Your task to perform on an android device: Open Wikipedia Image 0: 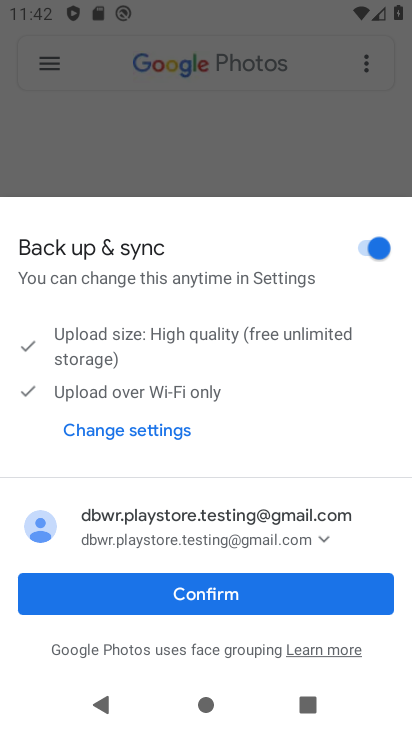
Step 0: press home button
Your task to perform on an android device: Open Wikipedia Image 1: 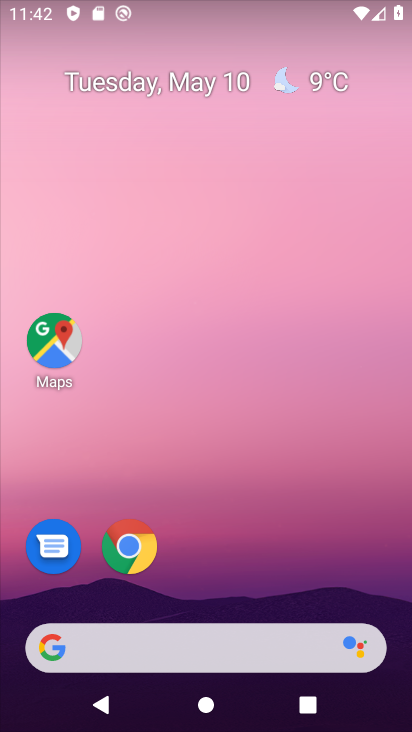
Step 1: click (144, 563)
Your task to perform on an android device: Open Wikipedia Image 2: 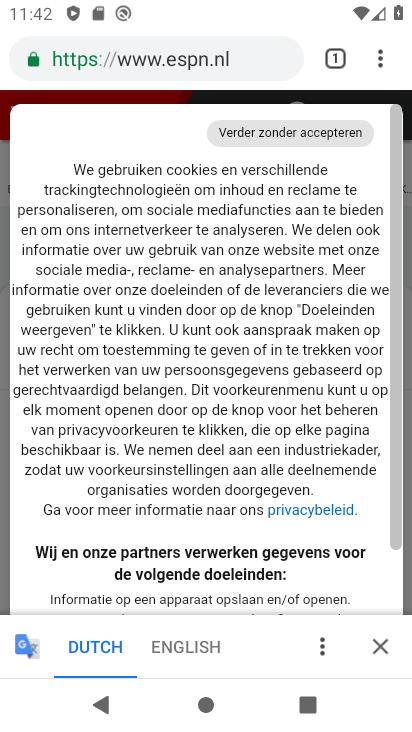
Step 2: drag from (204, 29) to (206, 129)
Your task to perform on an android device: Open Wikipedia Image 3: 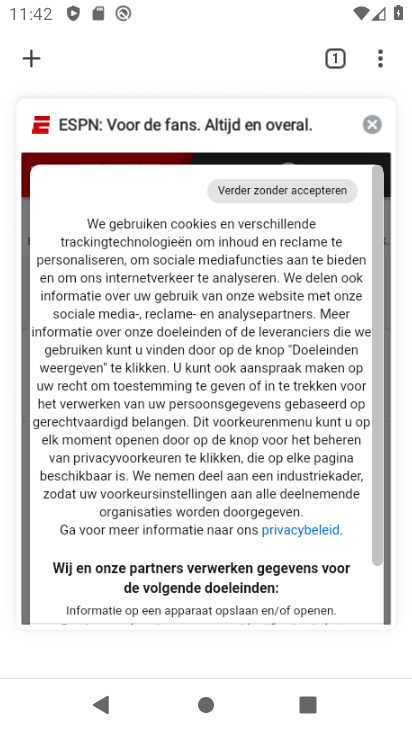
Step 3: click (26, 61)
Your task to perform on an android device: Open Wikipedia Image 4: 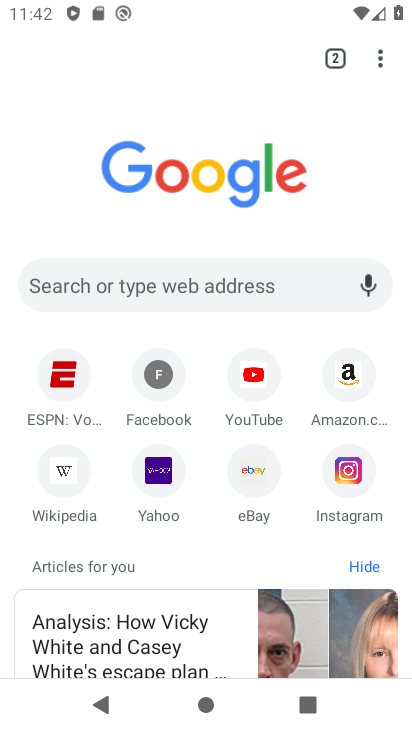
Step 4: click (61, 484)
Your task to perform on an android device: Open Wikipedia Image 5: 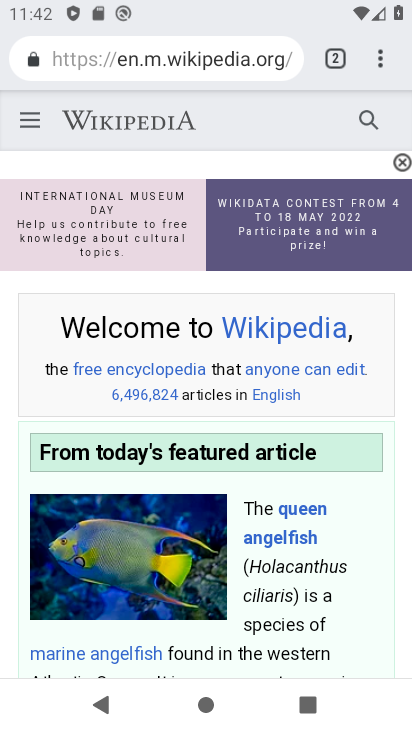
Step 5: task complete